Your task to perform on an android device: Open Android settings Image 0: 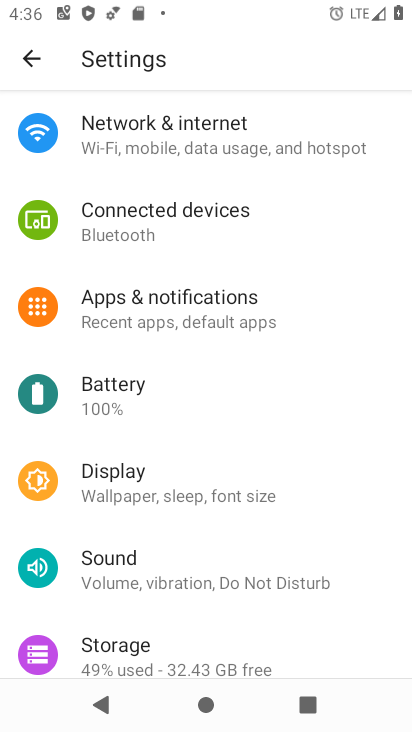
Step 0: drag from (175, 615) to (282, 65)
Your task to perform on an android device: Open Android settings Image 1: 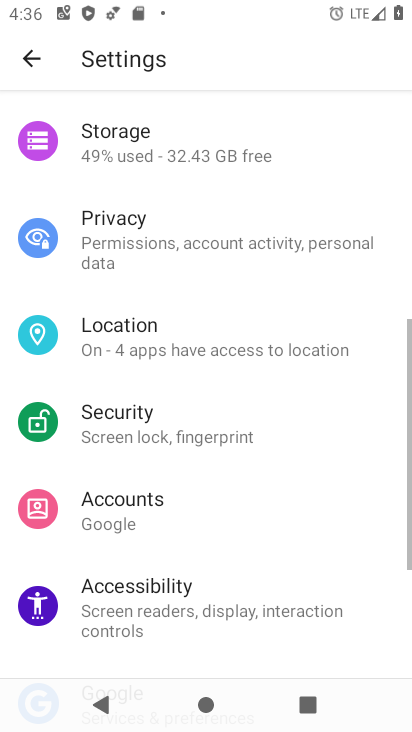
Step 1: drag from (149, 615) to (273, 70)
Your task to perform on an android device: Open Android settings Image 2: 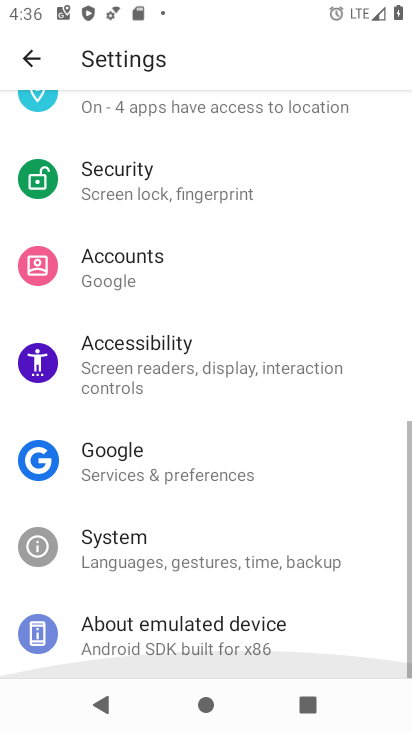
Step 2: drag from (124, 606) to (256, 78)
Your task to perform on an android device: Open Android settings Image 3: 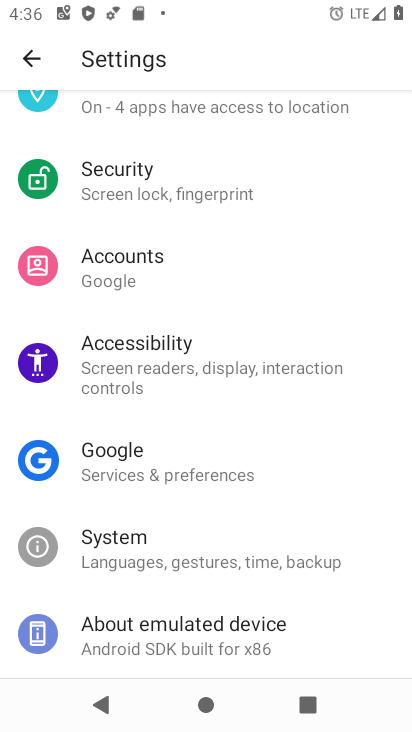
Step 3: click (179, 661)
Your task to perform on an android device: Open Android settings Image 4: 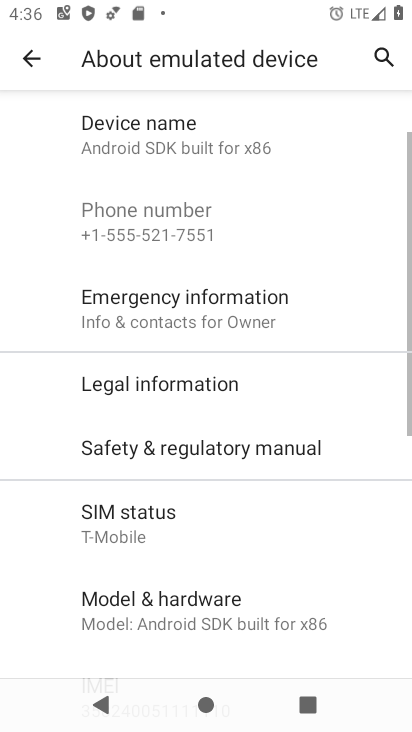
Step 4: drag from (183, 583) to (314, 71)
Your task to perform on an android device: Open Android settings Image 5: 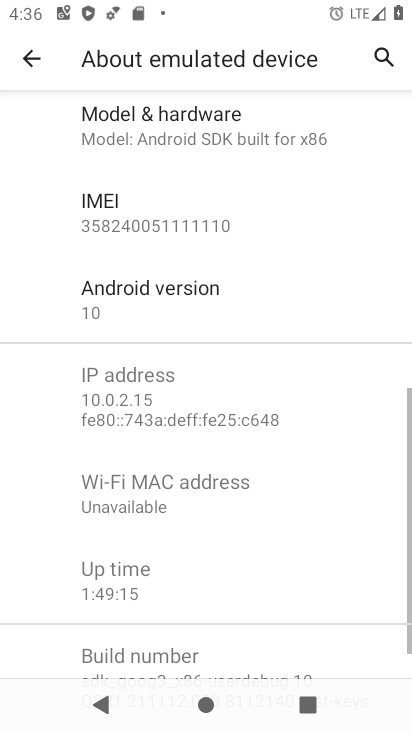
Step 5: click (132, 302)
Your task to perform on an android device: Open Android settings Image 6: 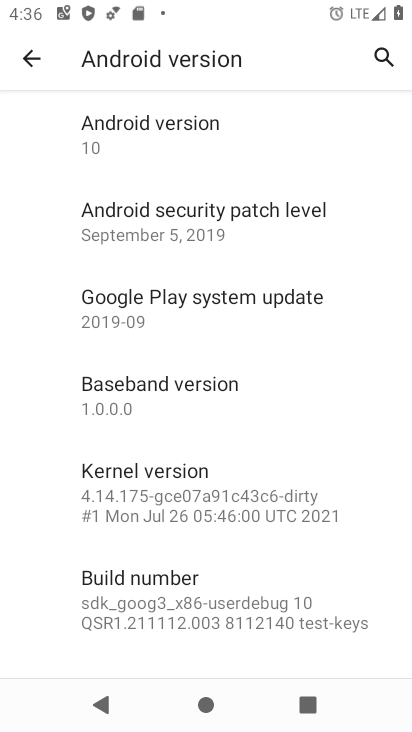
Step 6: click (140, 139)
Your task to perform on an android device: Open Android settings Image 7: 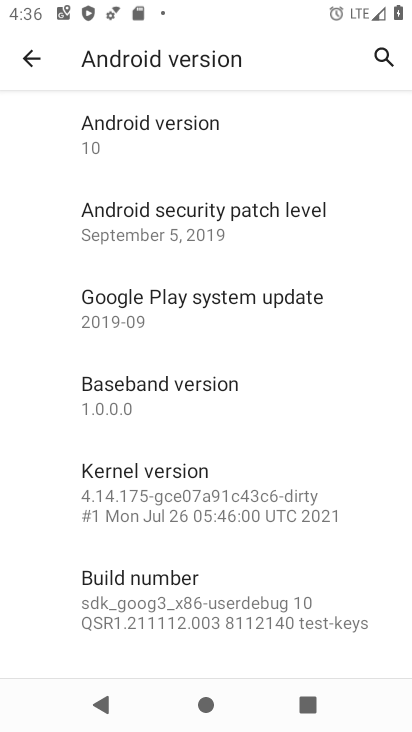
Step 7: task complete